Your task to perform on an android device: toggle priority inbox in the gmail app Image 0: 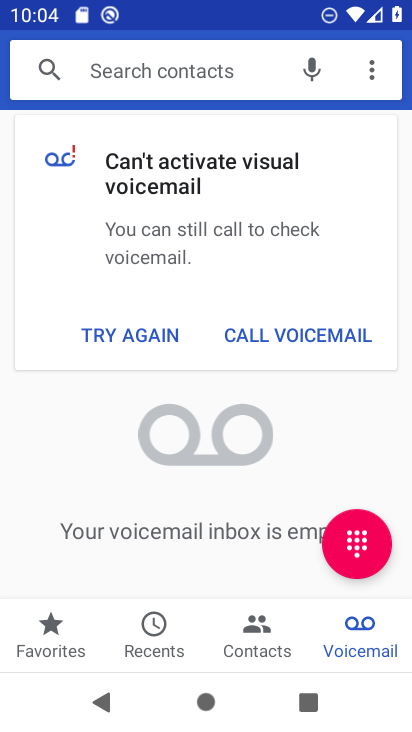
Step 0: press back button
Your task to perform on an android device: toggle priority inbox in the gmail app Image 1: 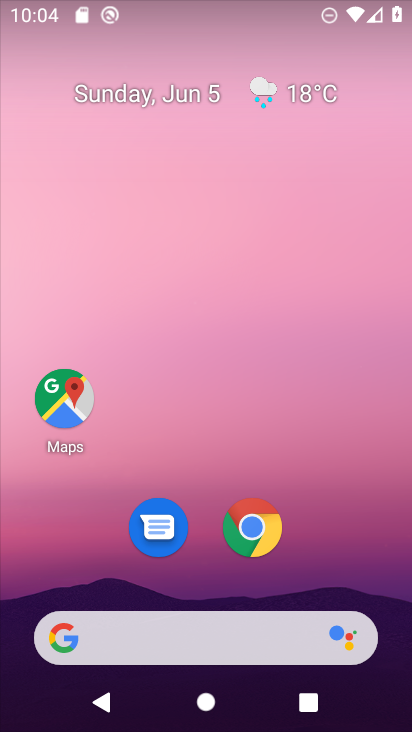
Step 1: drag from (168, 595) to (254, 9)
Your task to perform on an android device: toggle priority inbox in the gmail app Image 2: 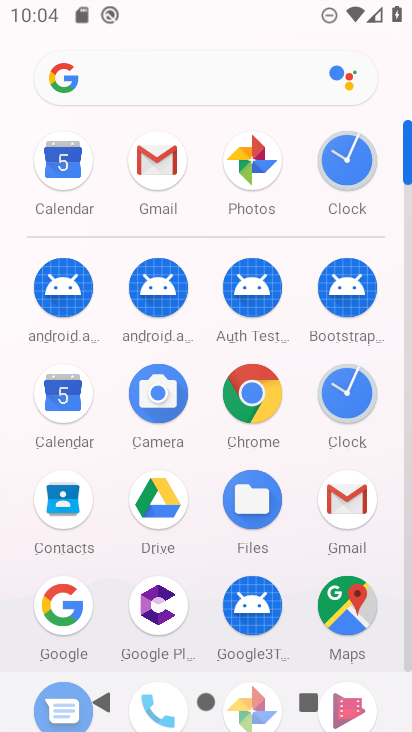
Step 2: click (150, 169)
Your task to perform on an android device: toggle priority inbox in the gmail app Image 3: 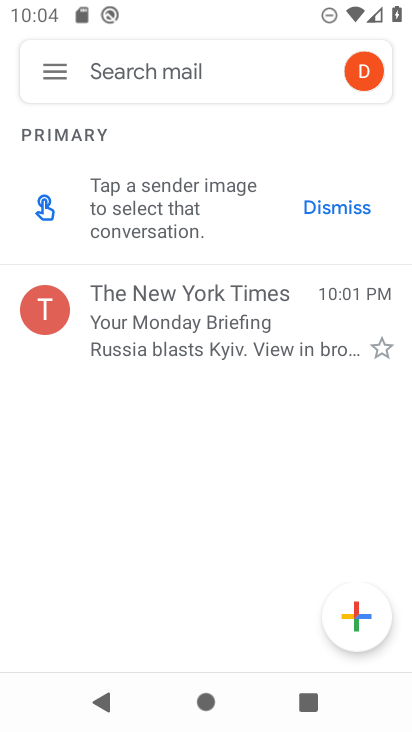
Step 3: click (49, 62)
Your task to perform on an android device: toggle priority inbox in the gmail app Image 4: 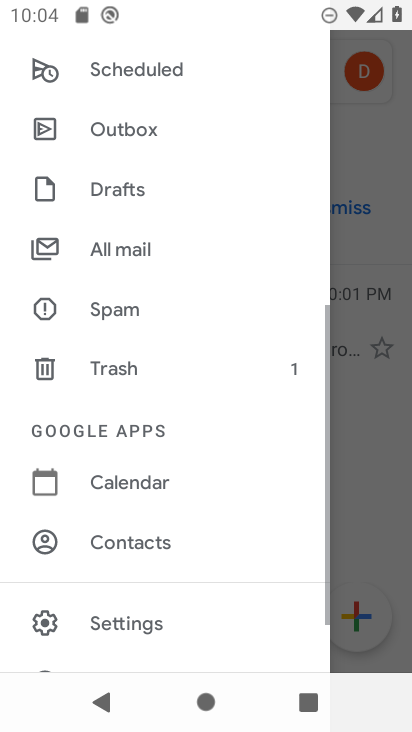
Step 4: click (143, 622)
Your task to perform on an android device: toggle priority inbox in the gmail app Image 5: 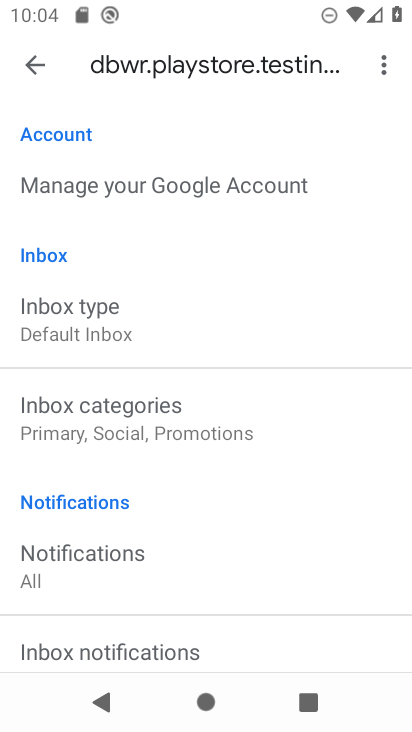
Step 5: click (210, 336)
Your task to perform on an android device: toggle priority inbox in the gmail app Image 6: 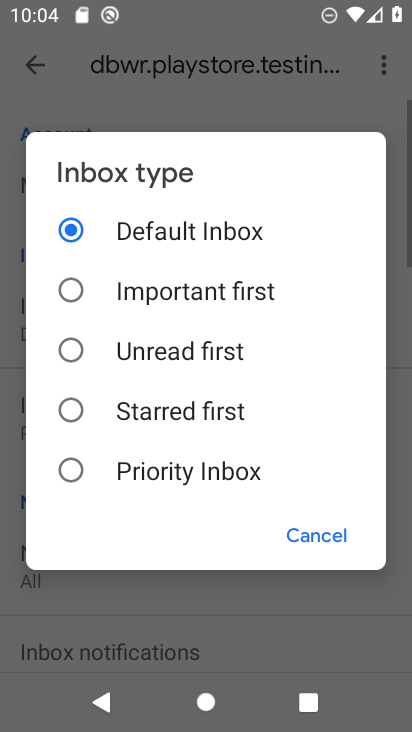
Step 6: click (123, 463)
Your task to perform on an android device: toggle priority inbox in the gmail app Image 7: 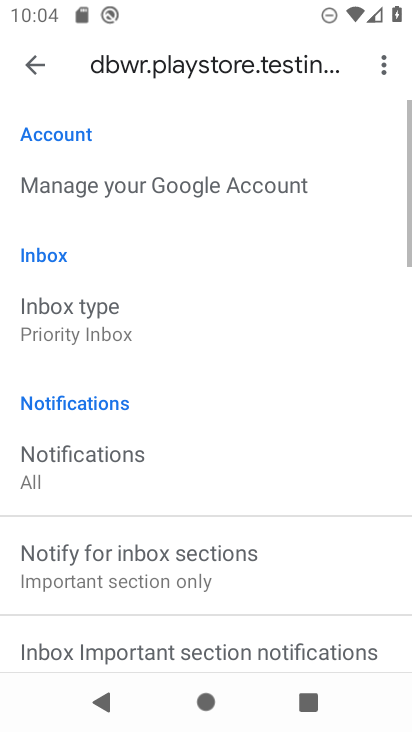
Step 7: task complete